Your task to perform on an android device: turn on javascript in the chrome app Image 0: 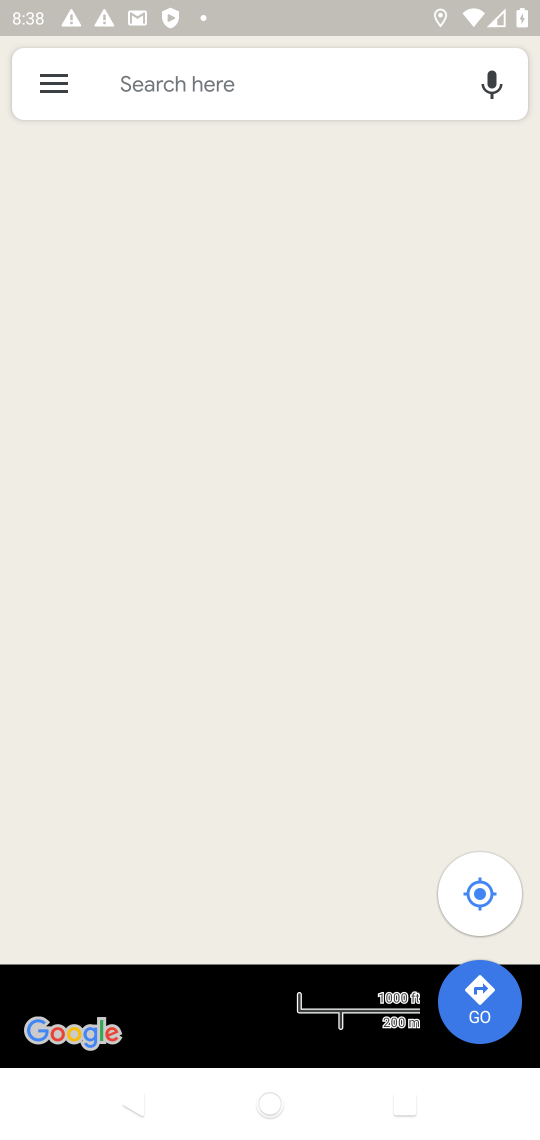
Step 0: press home button
Your task to perform on an android device: turn on javascript in the chrome app Image 1: 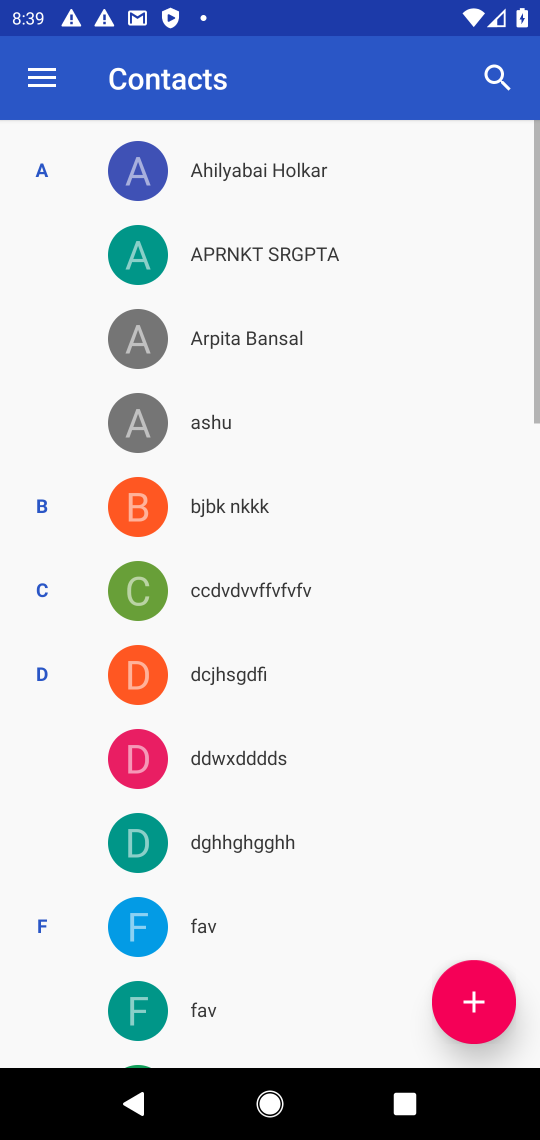
Step 1: press home button
Your task to perform on an android device: turn on javascript in the chrome app Image 2: 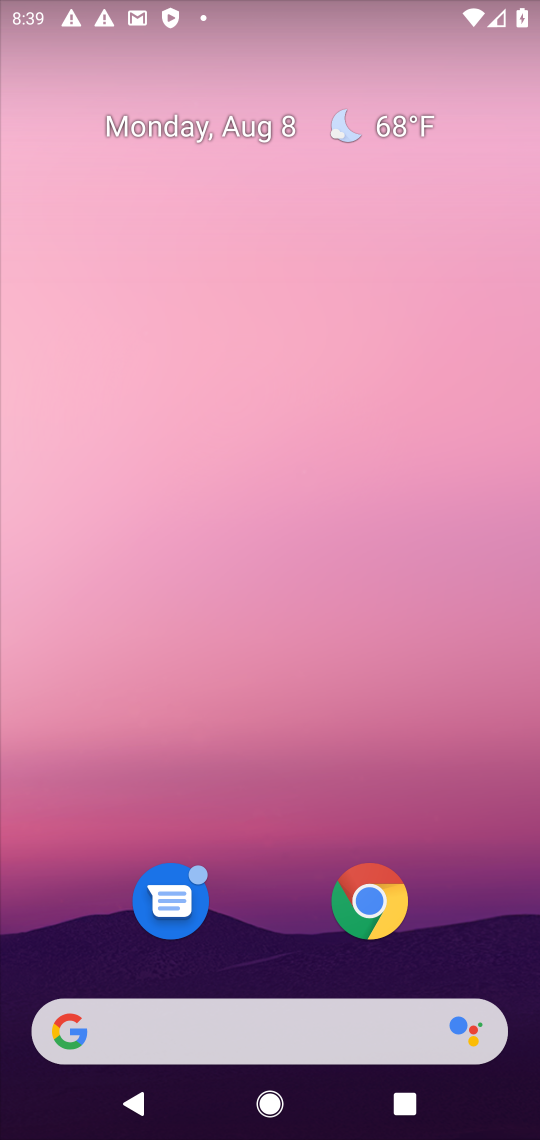
Step 2: drag from (246, 957) to (278, 422)
Your task to perform on an android device: turn on javascript in the chrome app Image 3: 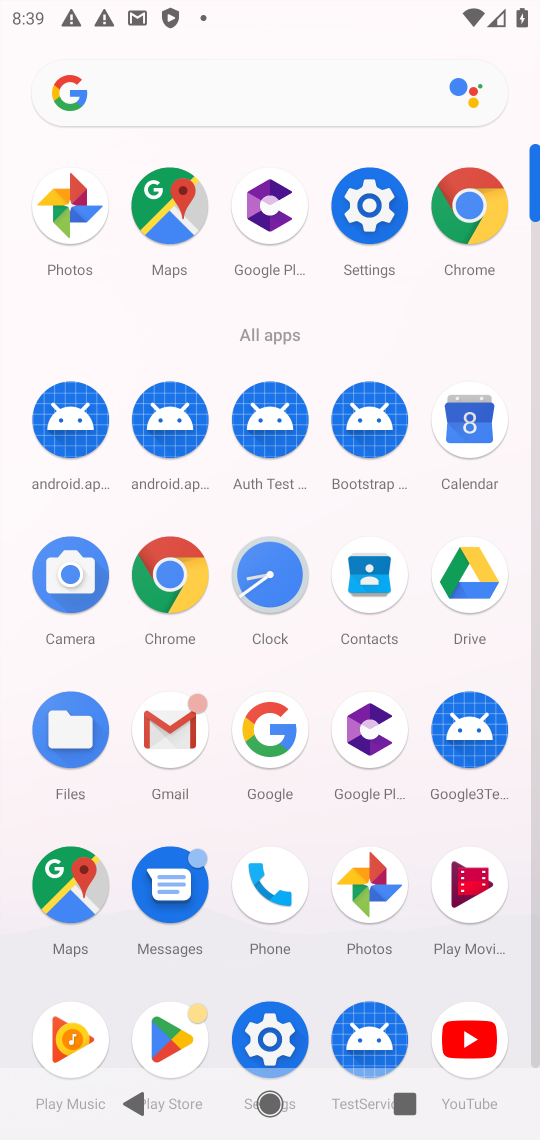
Step 3: click (462, 220)
Your task to perform on an android device: turn on javascript in the chrome app Image 4: 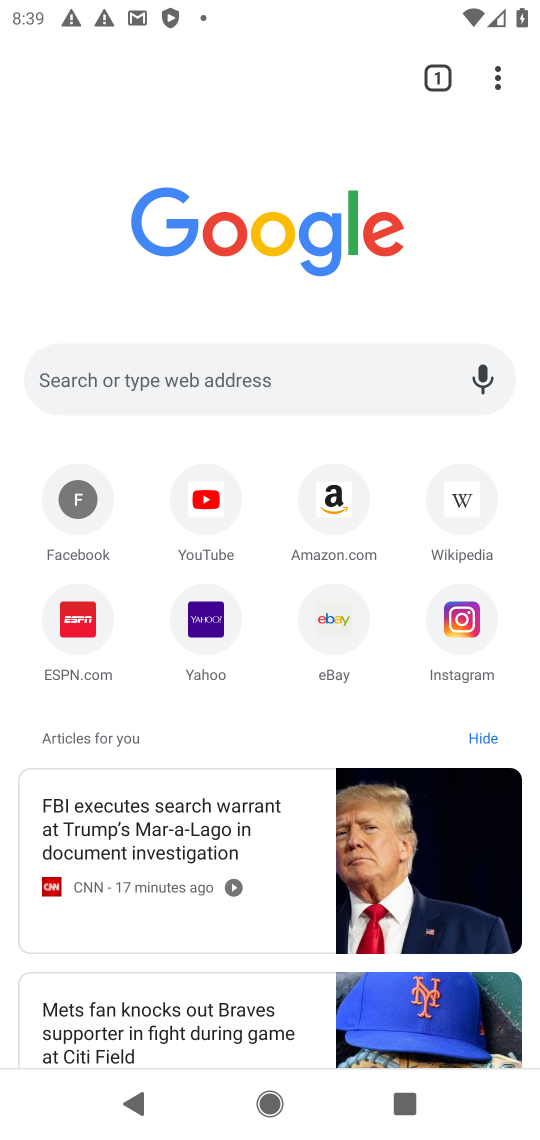
Step 4: click (499, 84)
Your task to perform on an android device: turn on javascript in the chrome app Image 5: 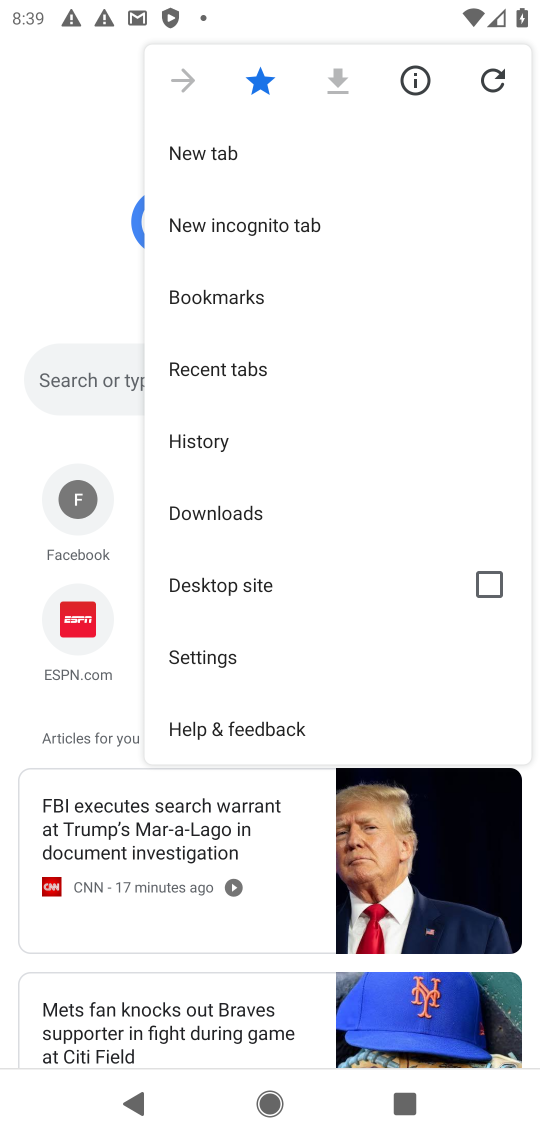
Step 5: click (496, 84)
Your task to perform on an android device: turn on javascript in the chrome app Image 6: 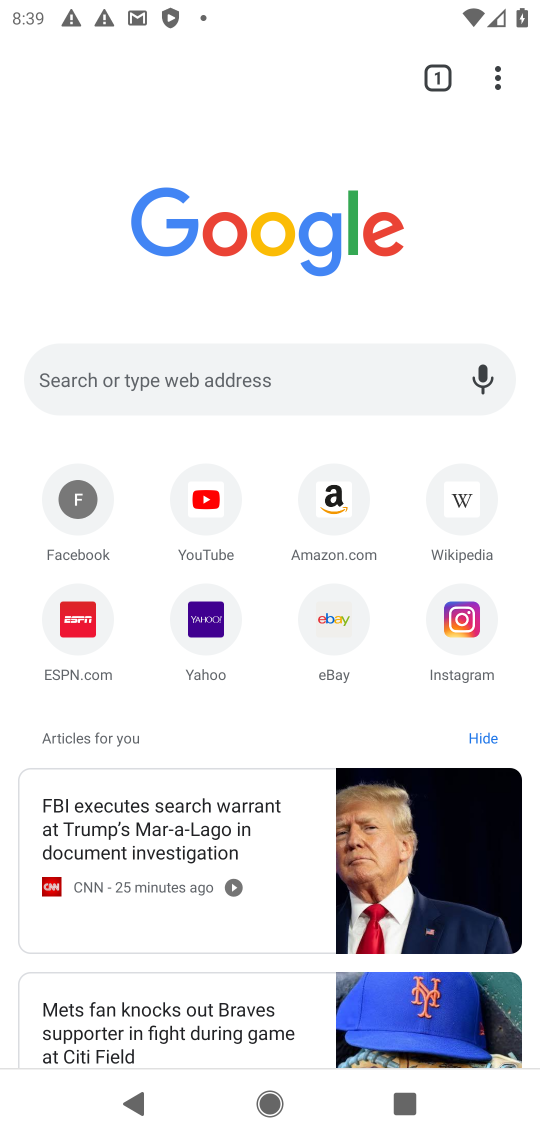
Step 6: click (496, 84)
Your task to perform on an android device: turn on javascript in the chrome app Image 7: 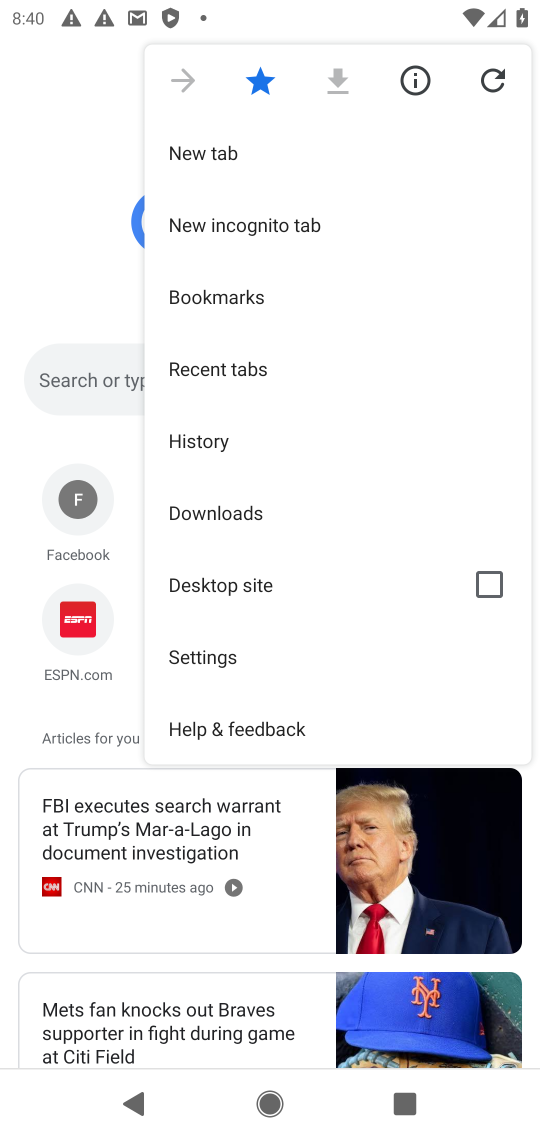
Step 7: click (501, 81)
Your task to perform on an android device: turn on javascript in the chrome app Image 8: 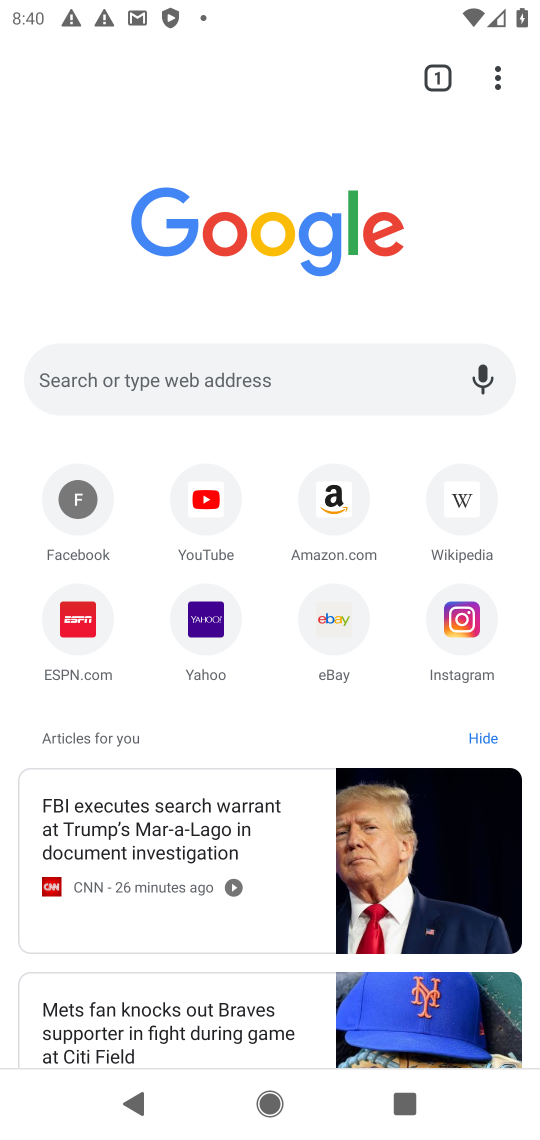
Step 8: click (205, 654)
Your task to perform on an android device: turn on javascript in the chrome app Image 9: 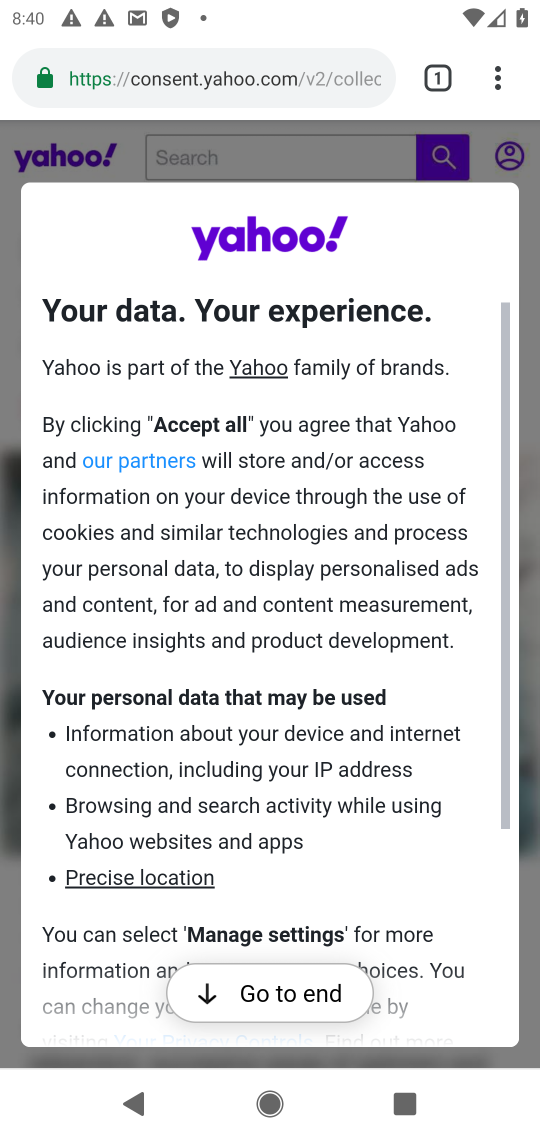
Step 9: press back button
Your task to perform on an android device: turn on javascript in the chrome app Image 10: 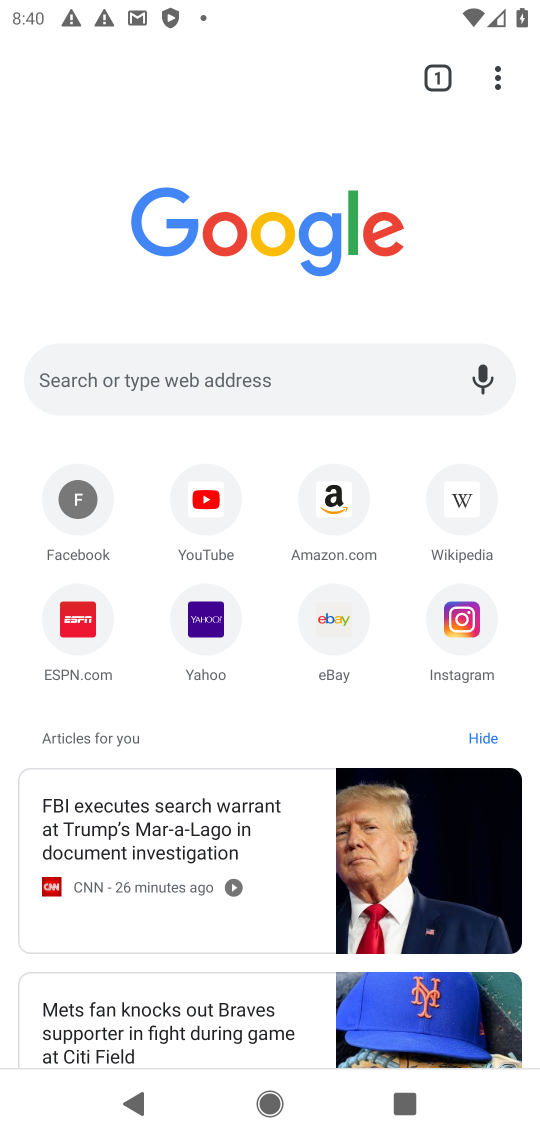
Step 10: click (497, 83)
Your task to perform on an android device: turn on javascript in the chrome app Image 11: 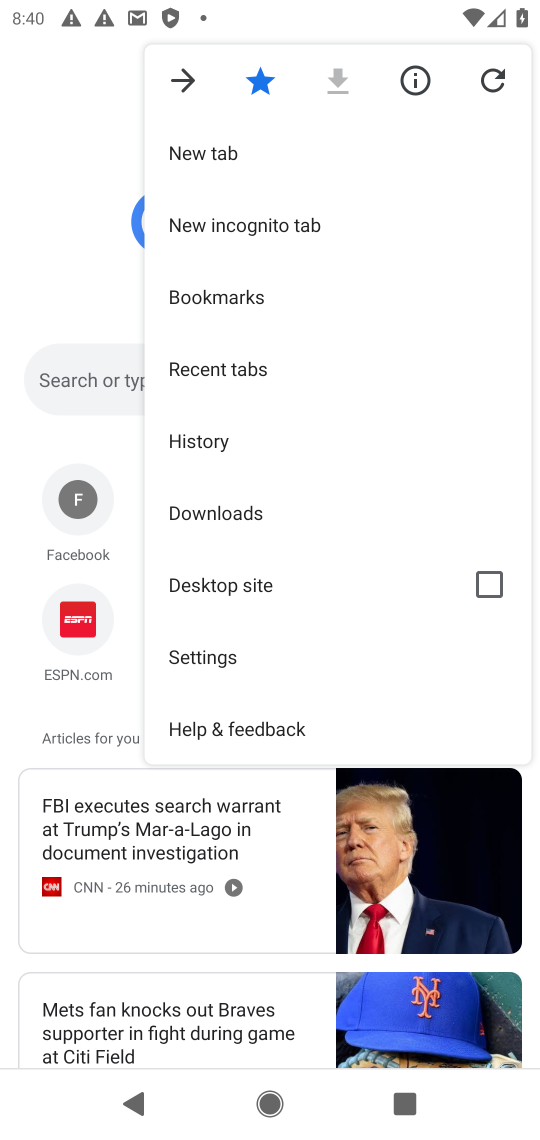
Step 11: click (209, 659)
Your task to perform on an android device: turn on javascript in the chrome app Image 12: 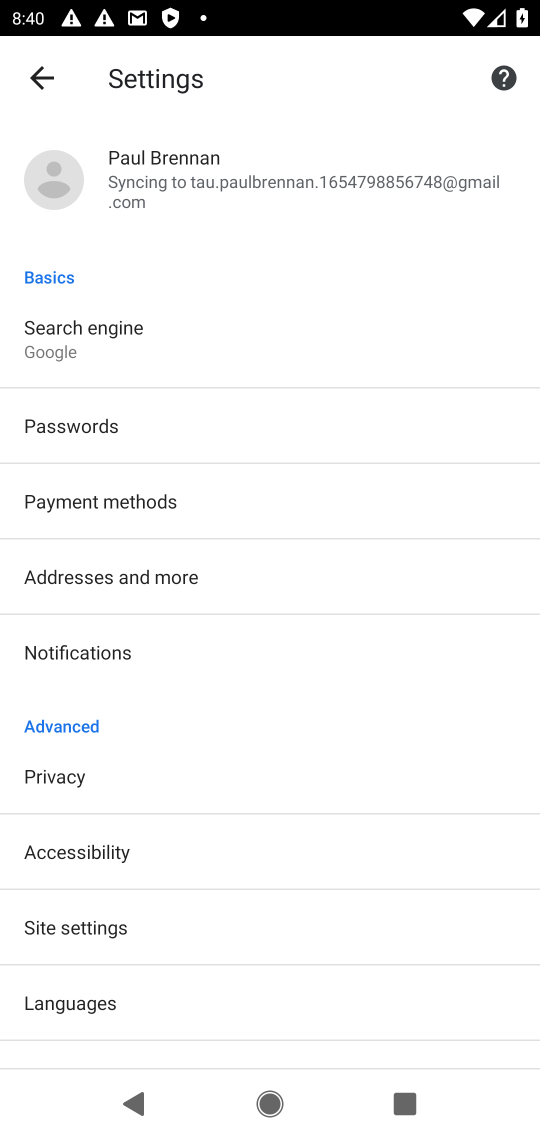
Step 12: click (55, 934)
Your task to perform on an android device: turn on javascript in the chrome app Image 13: 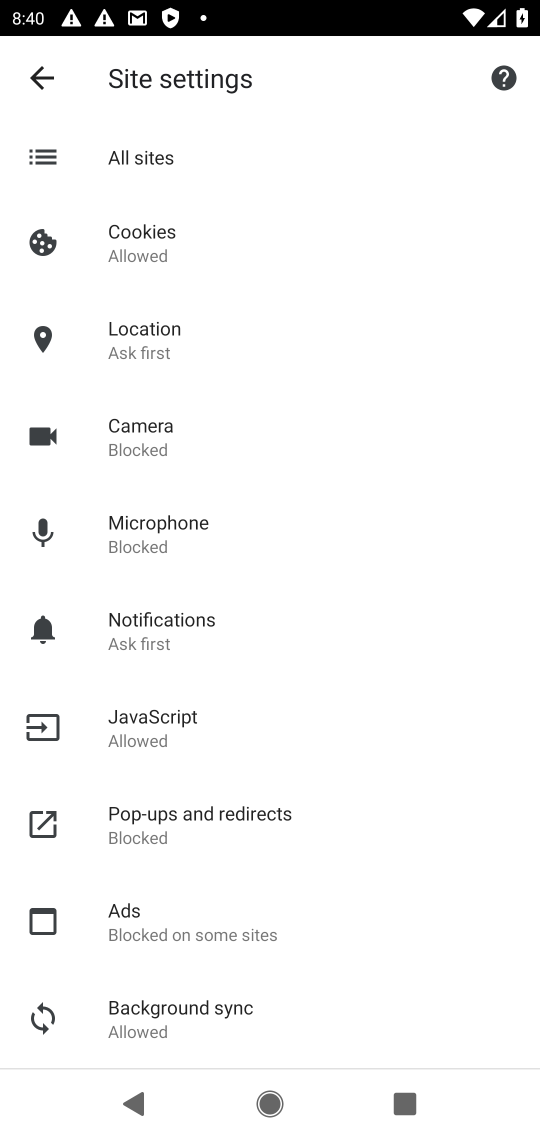
Step 13: click (195, 735)
Your task to perform on an android device: turn on javascript in the chrome app Image 14: 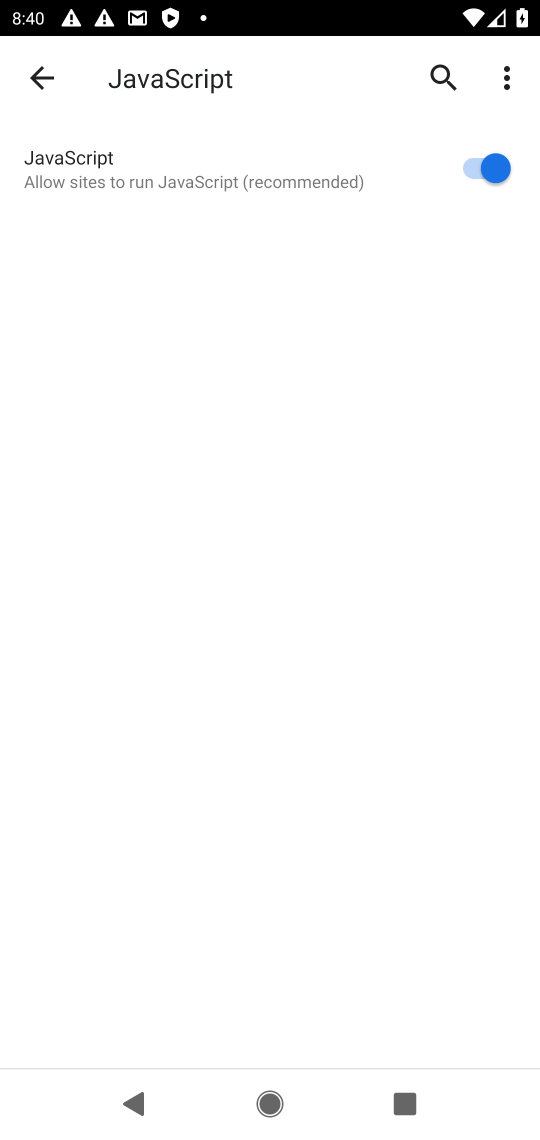
Step 14: task complete